Your task to perform on an android device: Open Youtube and go to the subscriptions tab Image 0: 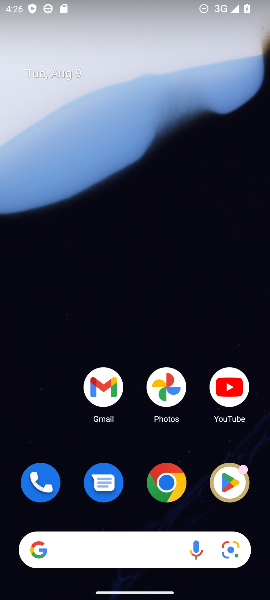
Step 0: click (222, 406)
Your task to perform on an android device: Open Youtube and go to the subscriptions tab Image 1: 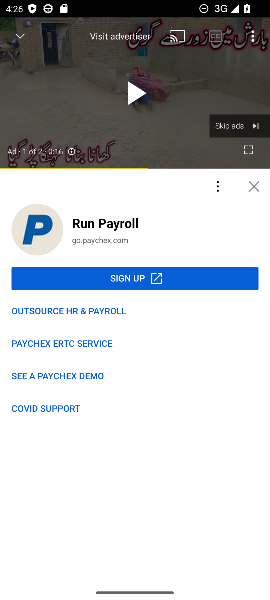
Step 1: drag from (193, 95) to (199, 460)
Your task to perform on an android device: Open Youtube and go to the subscriptions tab Image 2: 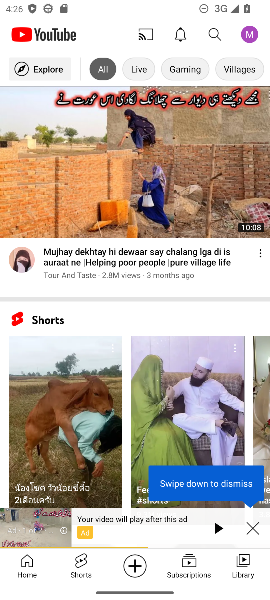
Step 2: click (250, 526)
Your task to perform on an android device: Open Youtube and go to the subscriptions tab Image 3: 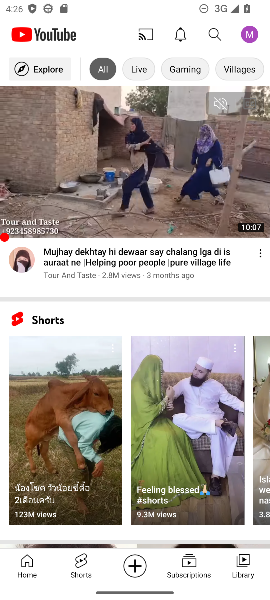
Step 3: click (186, 568)
Your task to perform on an android device: Open Youtube and go to the subscriptions tab Image 4: 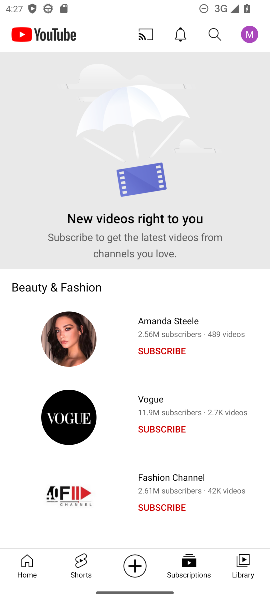
Step 4: task complete